Your task to perform on an android device: Go to calendar. Show me events next week Image 0: 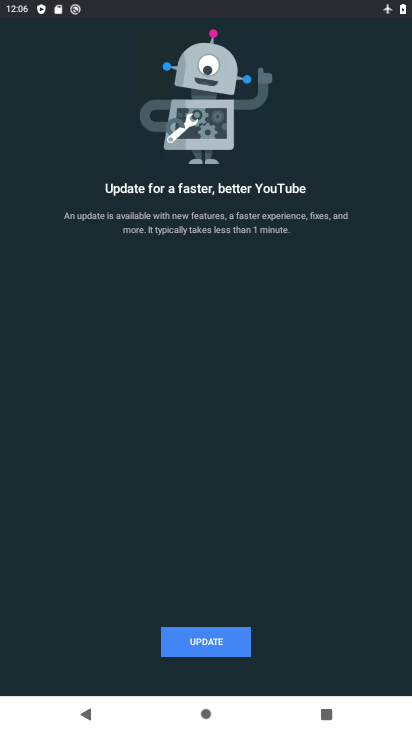
Step 0: press home button
Your task to perform on an android device: Go to calendar. Show me events next week Image 1: 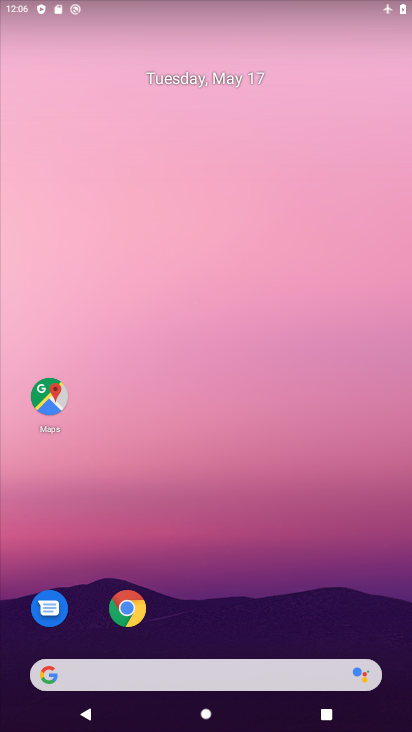
Step 1: drag from (208, 606) to (255, 188)
Your task to perform on an android device: Go to calendar. Show me events next week Image 2: 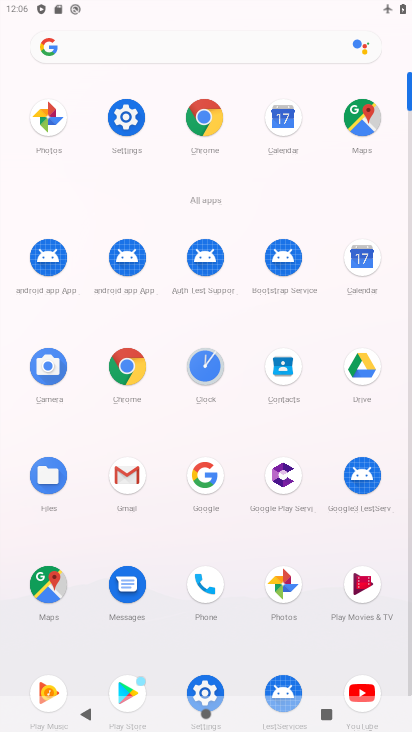
Step 2: click (356, 277)
Your task to perform on an android device: Go to calendar. Show me events next week Image 3: 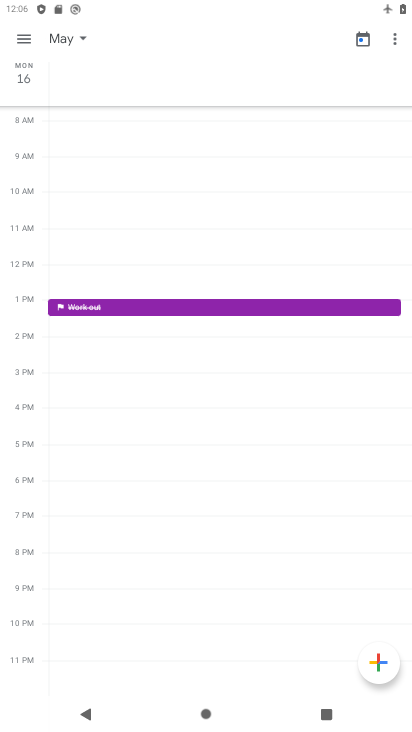
Step 3: click (56, 40)
Your task to perform on an android device: Go to calendar. Show me events next week Image 4: 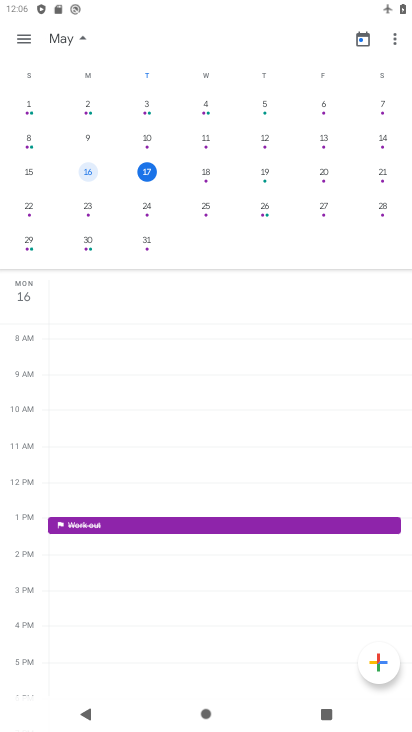
Step 4: click (25, 207)
Your task to perform on an android device: Go to calendar. Show me events next week Image 5: 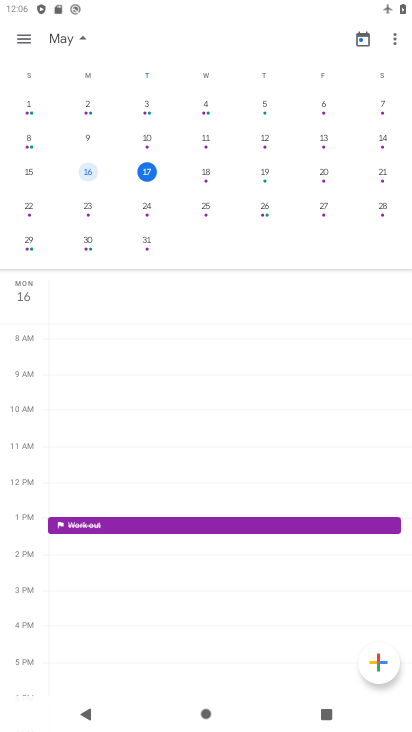
Step 5: click (32, 211)
Your task to perform on an android device: Go to calendar. Show me events next week Image 6: 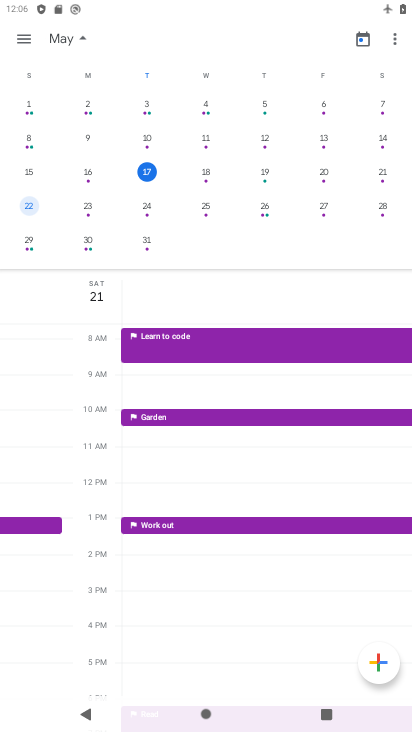
Step 6: click (32, 211)
Your task to perform on an android device: Go to calendar. Show me events next week Image 7: 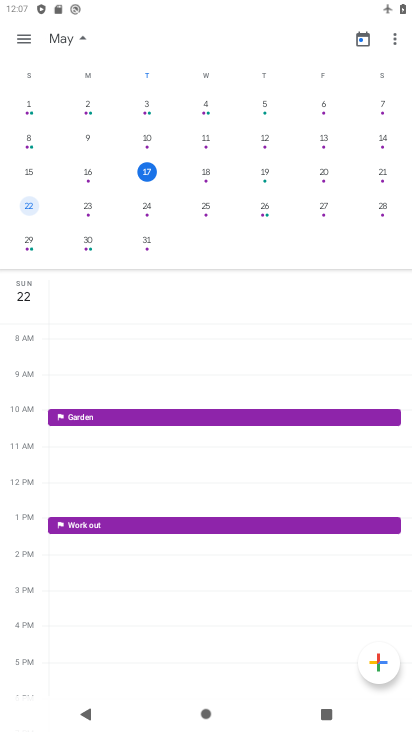
Step 7: click (28, 37)
Your task to perform on an android device: Go to calendar. Show me events next week Image 8: 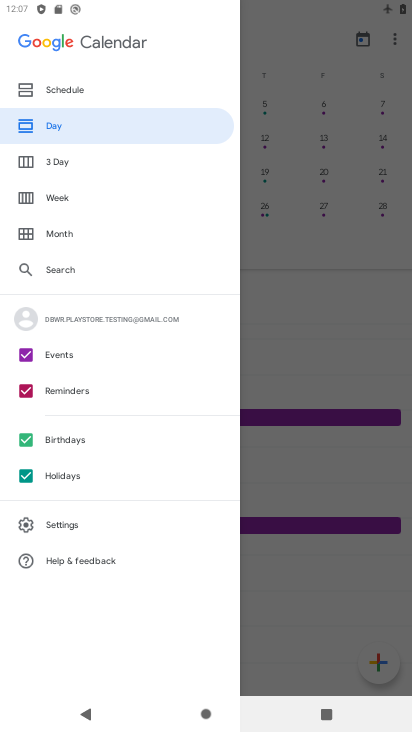
Step 8: click (71, 201)
Your task to perform on an android device: Go to calendar. Show me events next week Image 9: 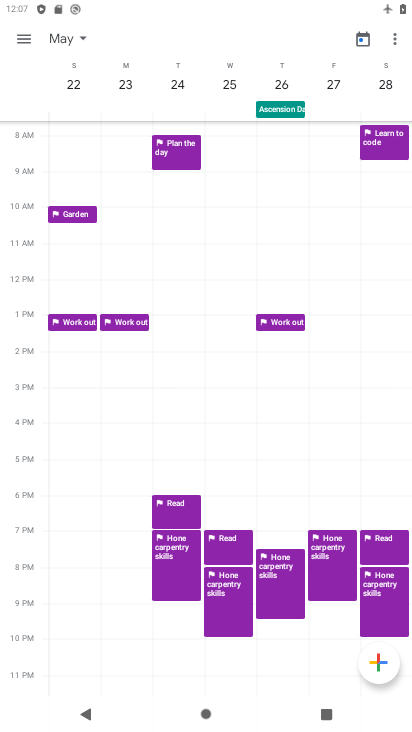
Step 9: task complete